Your task to perform on an android device: delete a single message in the gmail app Image 0: 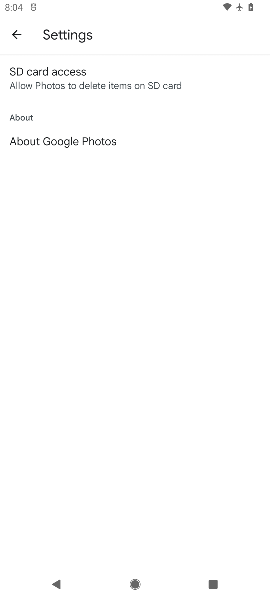
Step 0: press home button
Your task to perform on an android device: delete a single message in the gmail app Image 1: 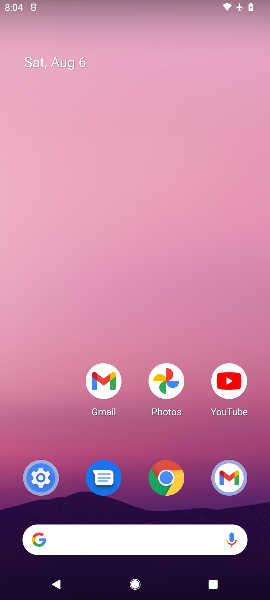
Step 1: click (103, 380)
Your task to perform on an android device: delete a single message in the gmail app Image 2: 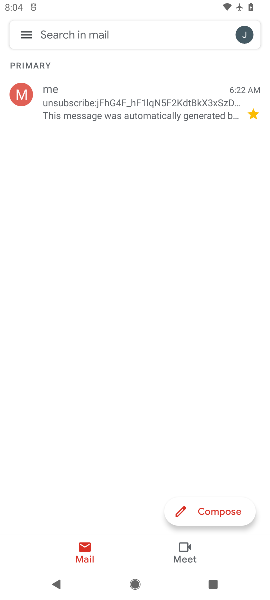
Step 2: click (110, 105)
Your task to perform on an android device: delete a single message in the gmail app Image 3: 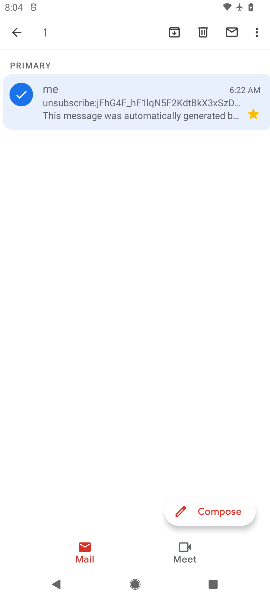
Step 3: click (199, 26)
Your task to perform on an android device: delete a single message in the gmail app Image 4: 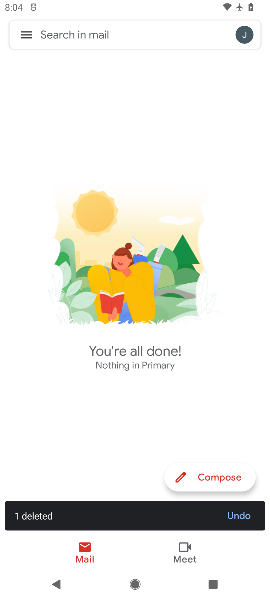
Step 4: task complete